Your task to perform on an android device: snooze an email in the gmail app Image 0: 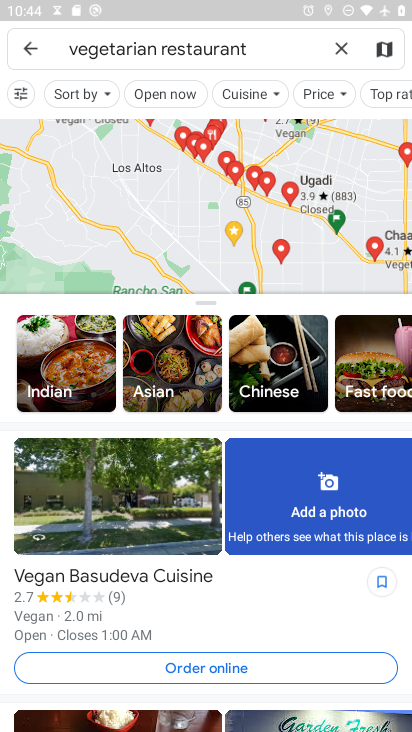
Step 0: press home button
Your task to perform on an android device: snooze an email in the gmail app Image 1: 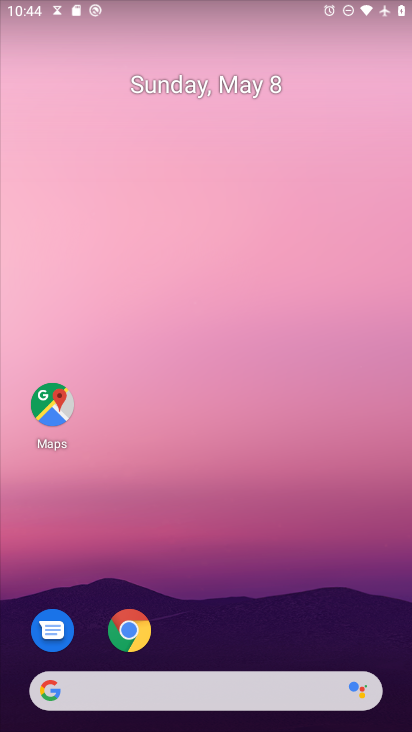
Step 1: drag from (204, 690) to (330, 243)
Your task to perform on an android device: snooze an email in the gmail app Image 2: 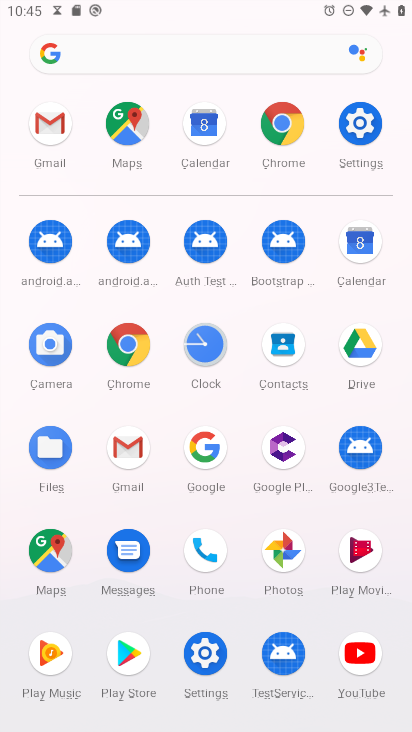
Step 2: click (129, 456)
Your task to perform on an android device: snooze an email in the gmail app Image 3: 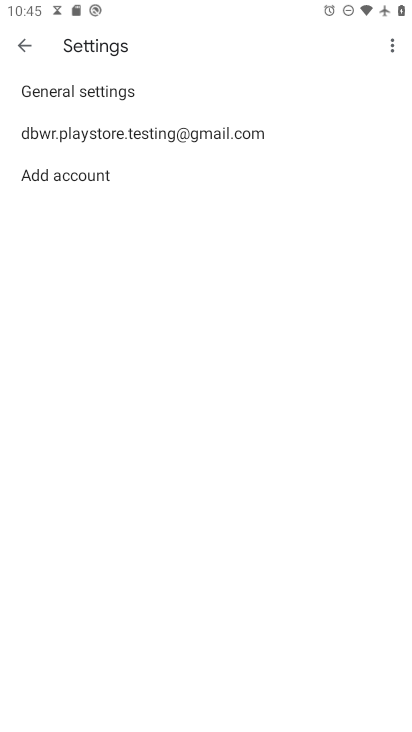
Step 3: click (27, 43)
Your task to perform on an android device: snooze an email in the gmail app Image 4: 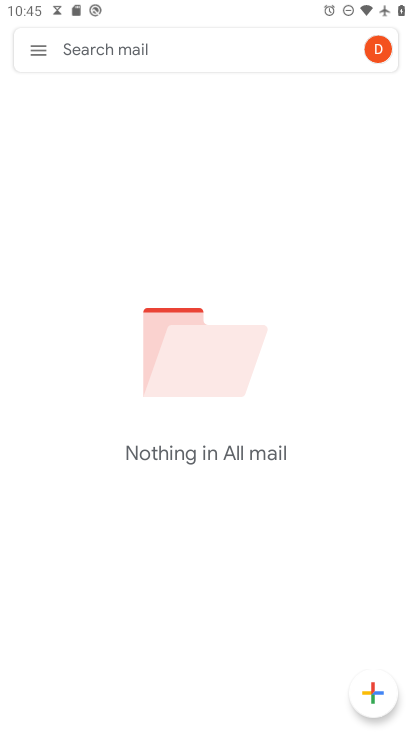
Step 4: task complete